Your task to perform on an android device: turn vacation reply on in the gmail app Image 0: 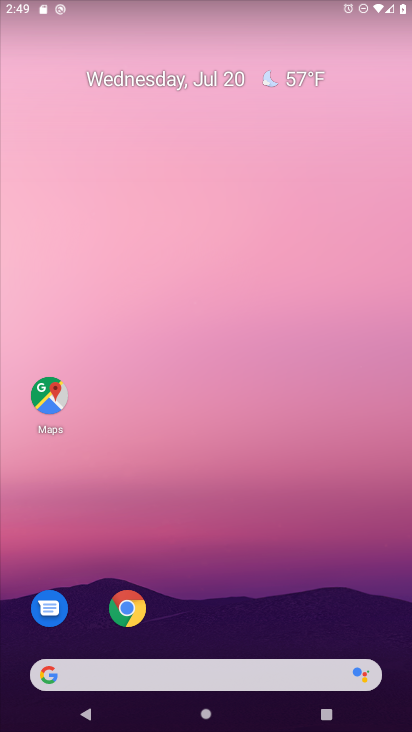
Step 0: drag from (253, 698) to (212, 93)
Your task to perform on an android device: turn vacation reply on in the gmail app Image 1: 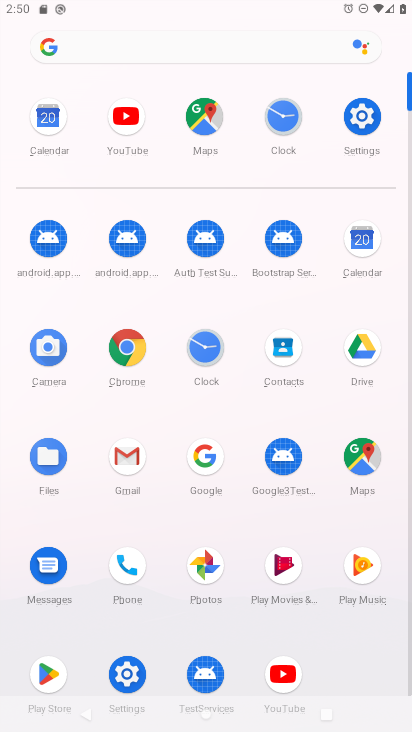
Step 1: click (130, 463)
Your task to perform on an android device: turn vacation reply on in the gmail app Image 2: 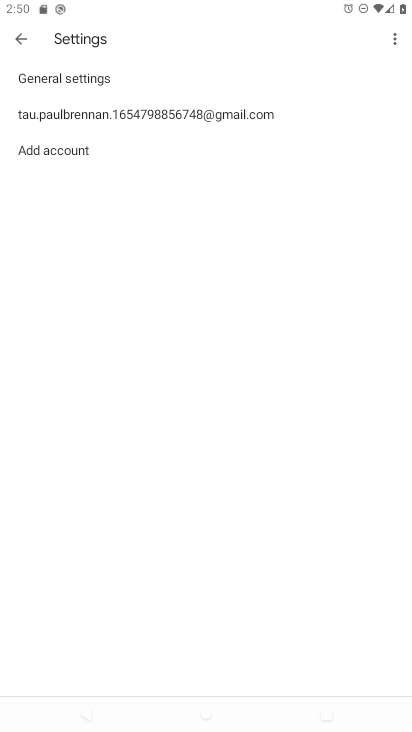
Step 2: click (223, 107)
Your task to perform on an android device: turn vacation reply on in the gmail app Image 3: 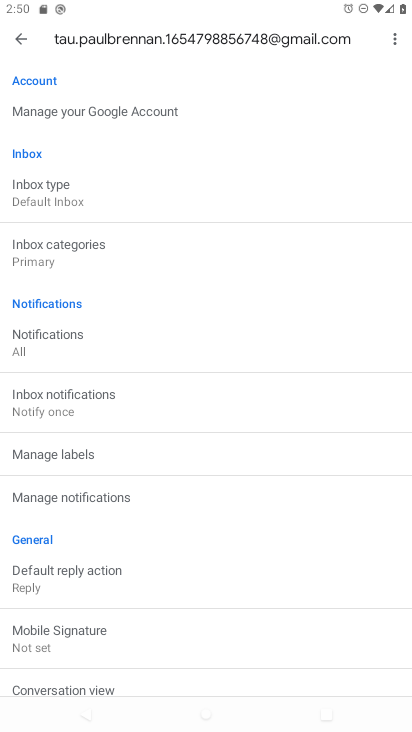
Step 3: drag from (245, 621) to (271, 117)
Your task to perform on an android device: turn vacation reply on in the gmail app Image 4: 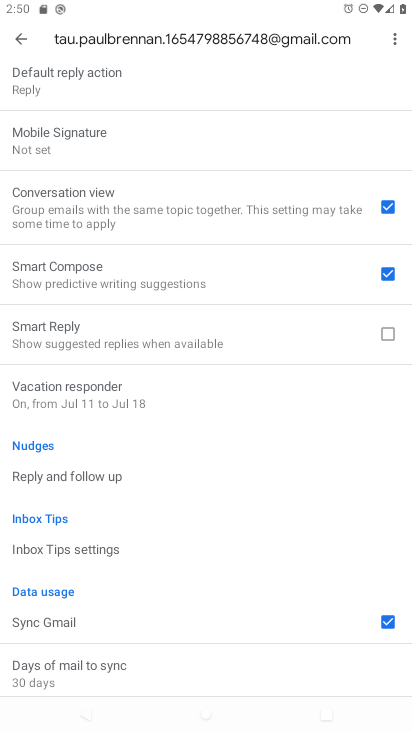
Step 4: click (137, 390)
Your task to perform on an android device: turn vacation reply on in the gmail app Image 5: 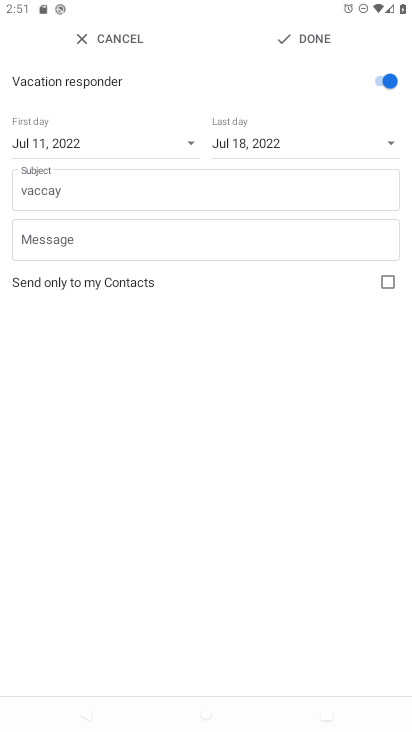
Step 5: click (317, 31)
Your task to perform on an android device: turn vacation reply on in the gmail app Image 6: 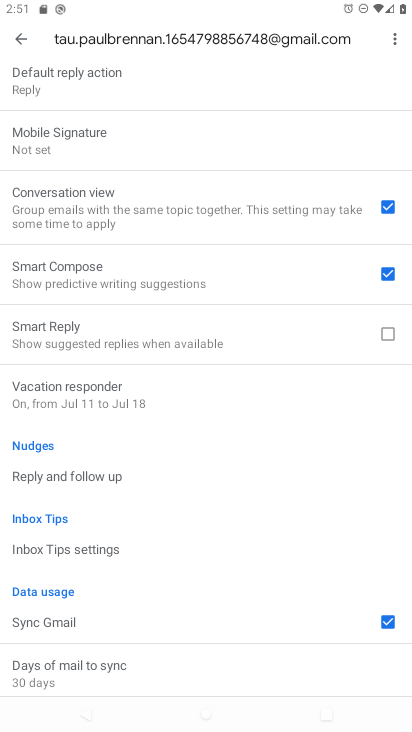
Step 6: task complete